Your task to perform on an android device: turn off priority inbox in the gmail app Image 0: 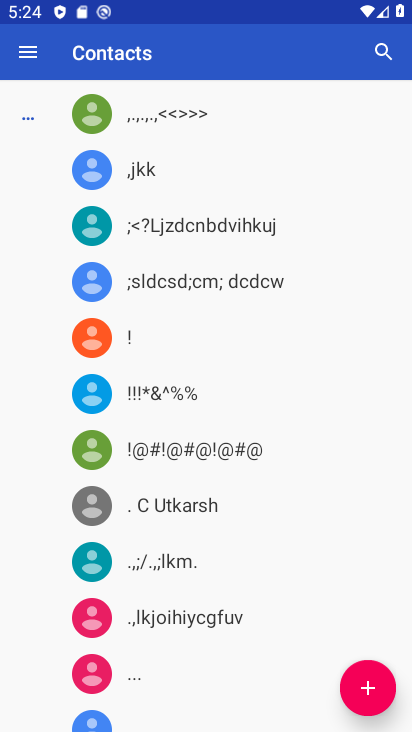
Step 0: press home button
Your task to perform on an android device: turn off priority inbox in the gmail app Image 1: 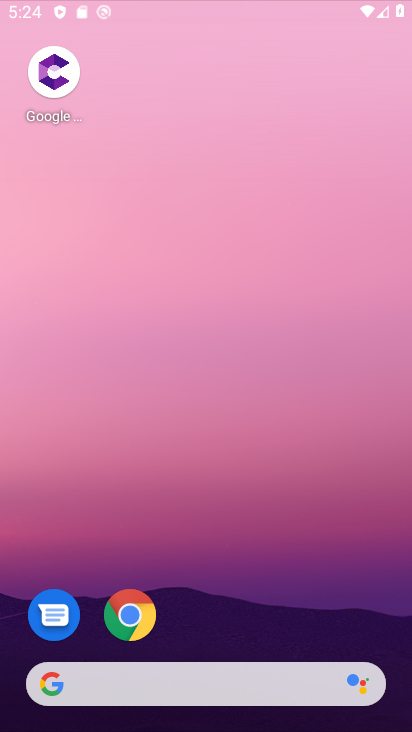
Step 1: drag from (215, 614) to (230, 4)
Your task to perform on an android device: turn off priority inbox in the gmail app Image 2: 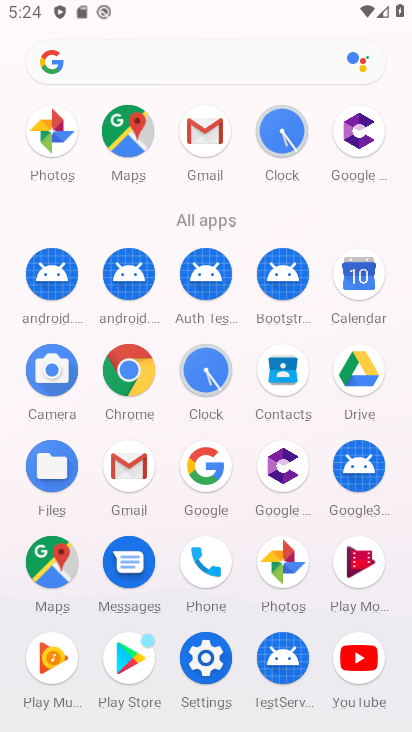
Step 2: click (135, 472)
Your task to perform on an android device: turn off priority inbox in the gmail app Image 3: 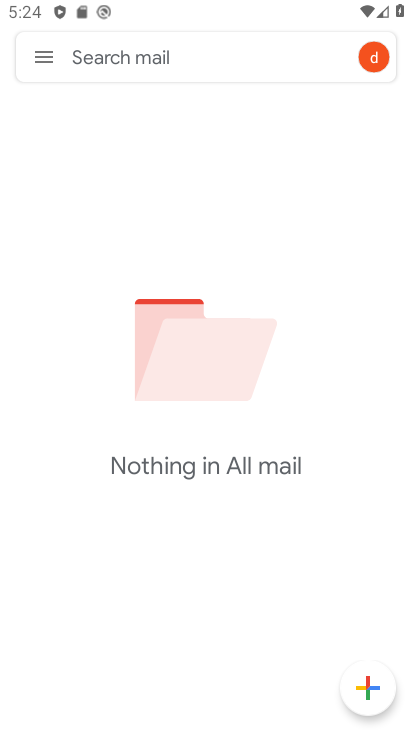
Step 3: click (36, 53)
Your task to perform on an android device: turn off priority inbox in the gmail app Image 4: 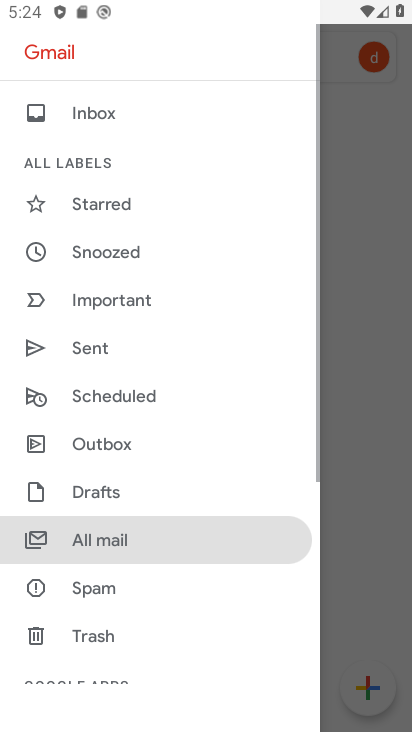
Step 4: drag from (111, 629) to (132, 144)
Your task to perform on an android device: turn off priority inbox in the gmail app Image 5: 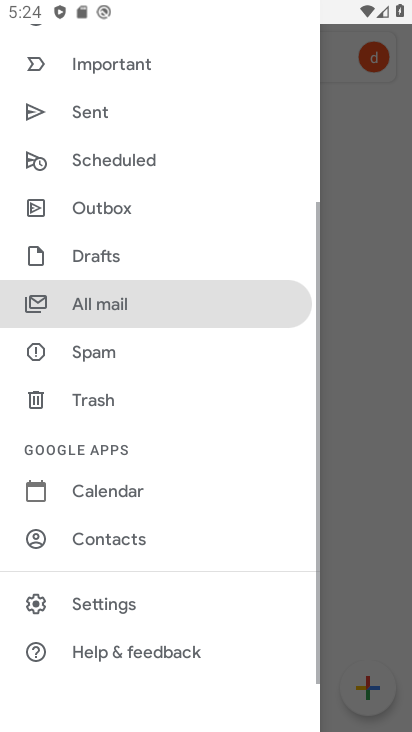
Step 5: click (102, 608)
Your task to perform on an android device: turn off priority inbox in the gmail app Image 6: 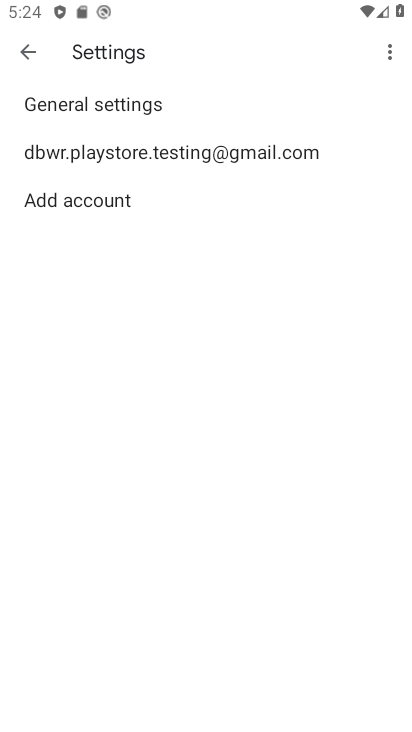
Step 6: click (140, 162)
Your task to perform on an android device: turn off priority inbox in the gmail app Image 7: 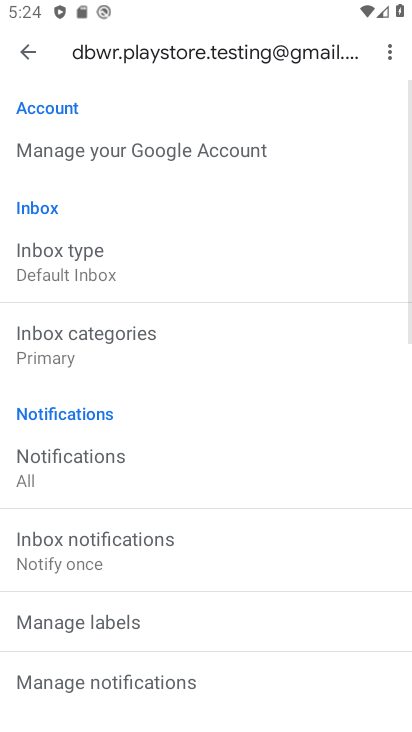
Step 7: click (117, 272)
Your task to perform on an android device: turn off priority inbox in the gmail app Image 8: 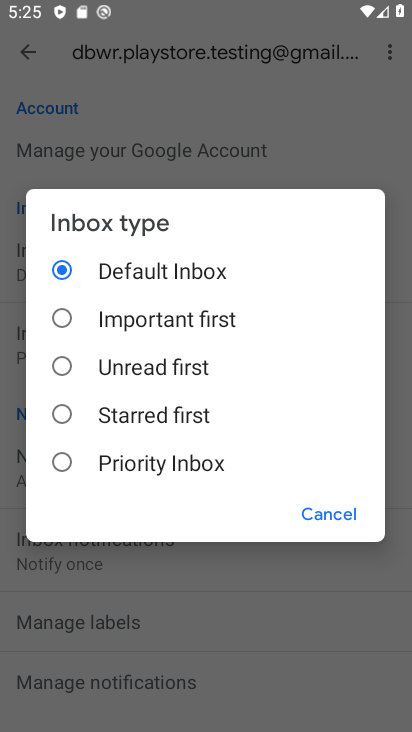
Step 8: task complete